Your task to perform on an android device: empty trash in the gmail app Image 0: 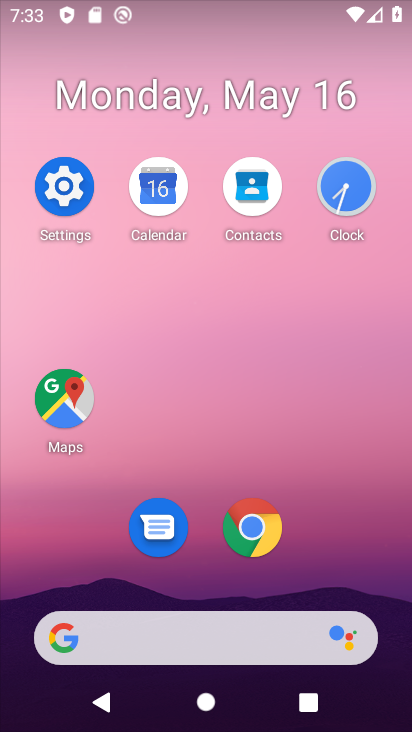
Step 0: drag from (352, 572) to (330, 81)
Your task to perform on an android device: empty trash in the gmail app Image 1: 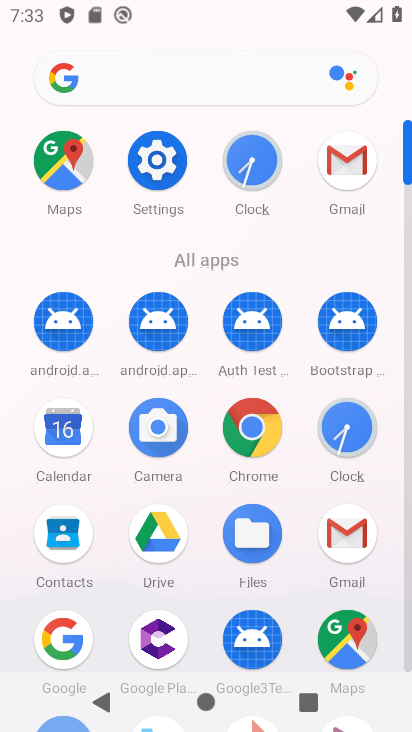
Step 1: drag from (358, 149) to (89, 286)
Your task to perform on an android device: empty trash in the gmail app Image 2: 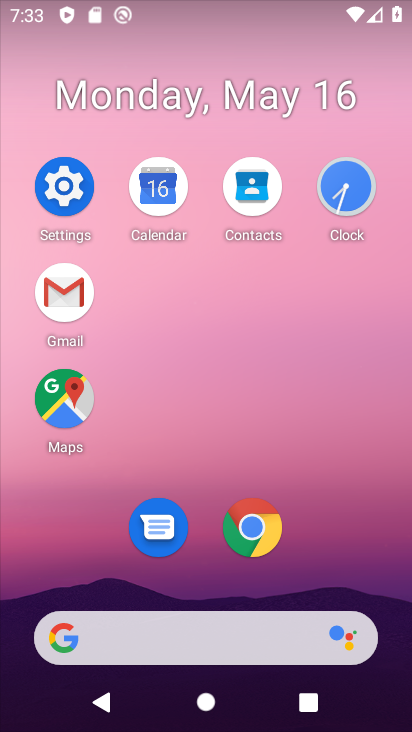
Step 2: click (74, 283)
Your task to perform on an android device: empty trash in the gmail app Image 3: 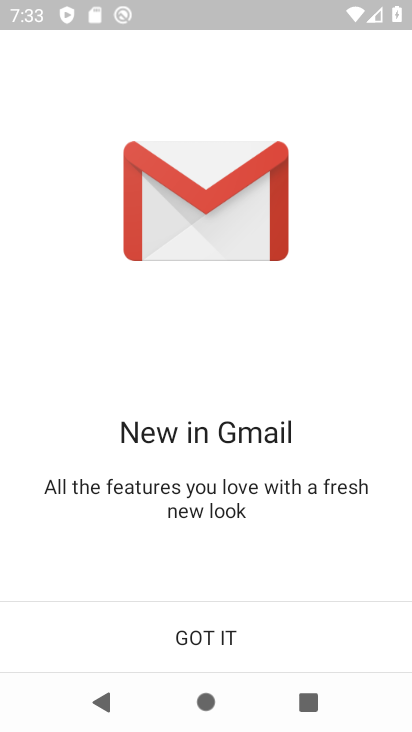
Step 3: click (217, 642)
Your task to perform on an android device: empty trash in the gmail app Image 4: 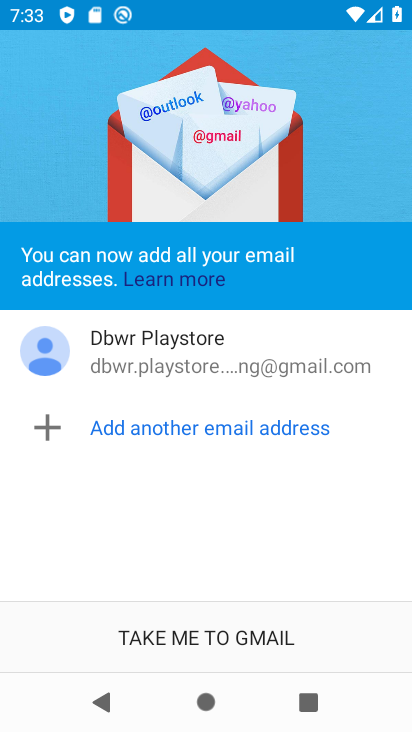
Step 4: click (217, 642)
Your task to perform on an android device: empty trash in the gmail app Image 5: 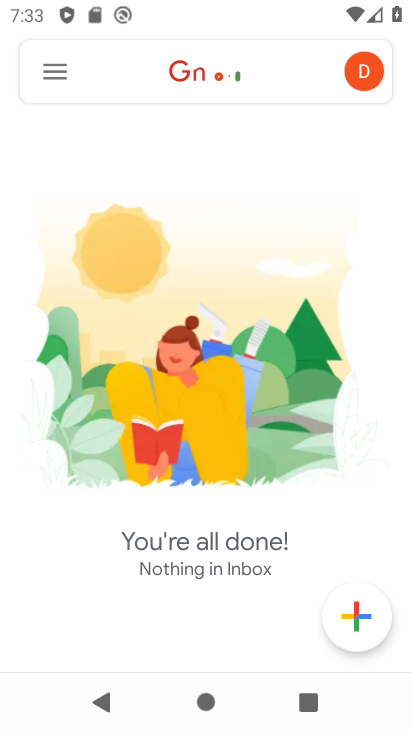
Step 5: click (60, 64)
Your task to perform on an android device: empty trash in the gmail app Image 6: 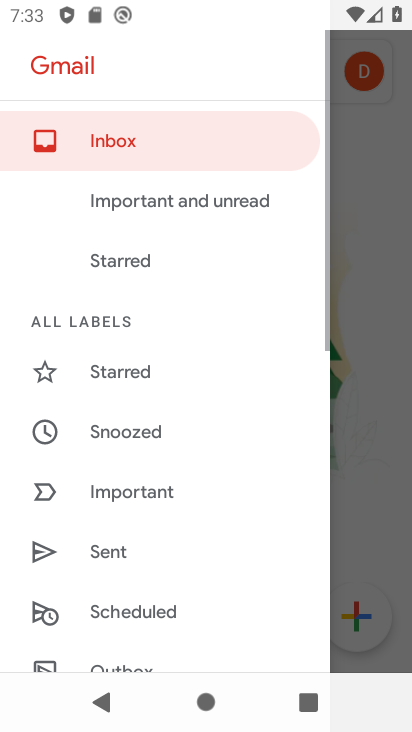
Step 6: drag from (142, 520) to (132, 177)
Your task to perform on an android device: empty trash in the gmail app Image 7: 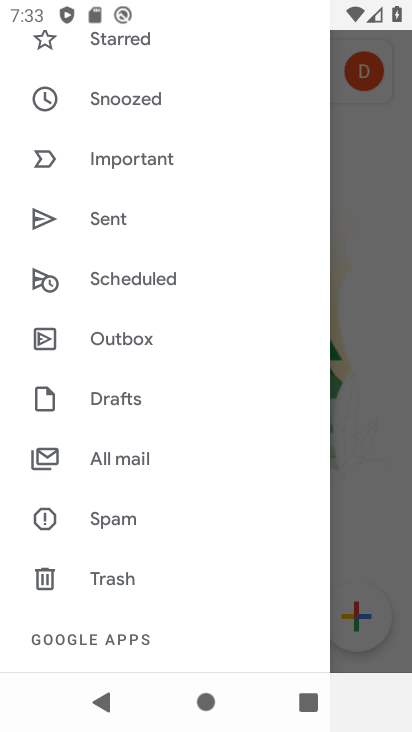
Step 7: drag from (186, 556) to (155, 275)
Your task to perform on an android device: empty trash in the gmail app Image 8: 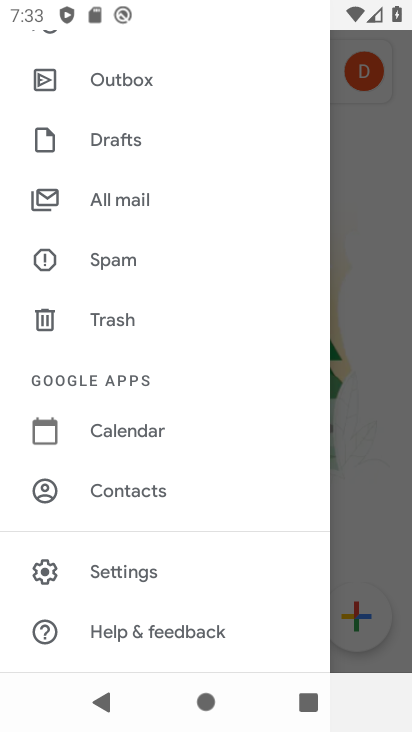
Step 8: click (165, 316)
Your task to perform on an android device: empty trash in the gmail app Image 9: 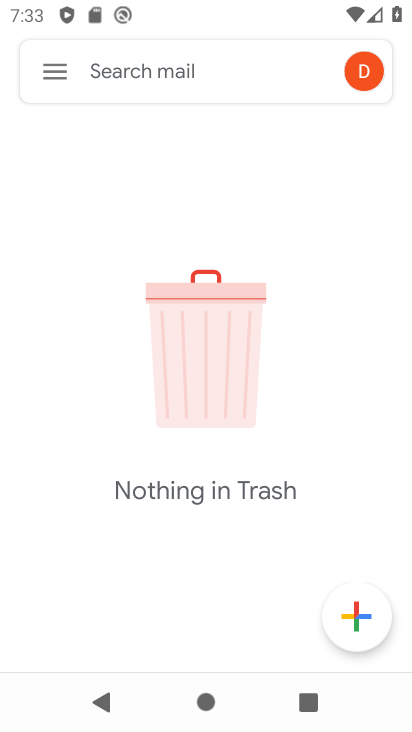
Step 9: task complete